Your task to perform on an android device: Show me popular games on the Play Store Image 0: 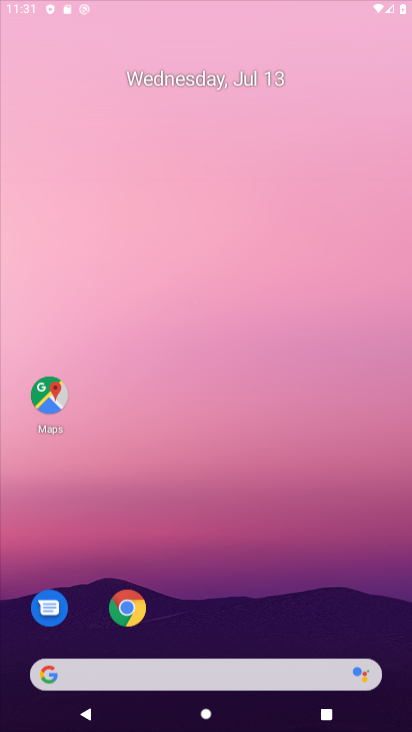
Step 0: click (240, 283)
Your task to perform on an android device: Show me popular games on the Play Store Image 1: 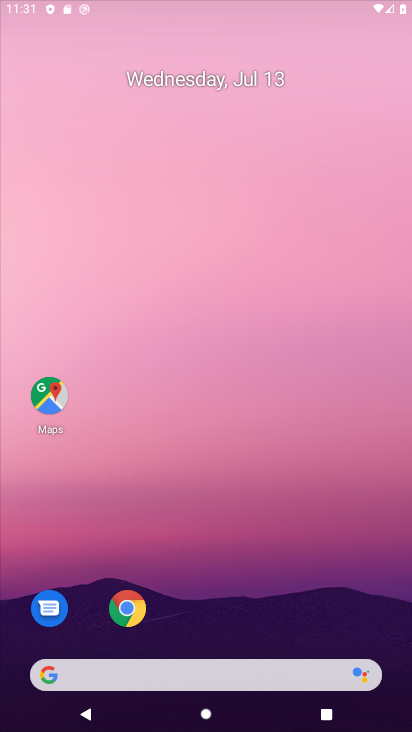
Step 1: drag from (203, 578) to (199, 204)
Your task to perform on an android device: Show me popular games on the Play Store Image 2: 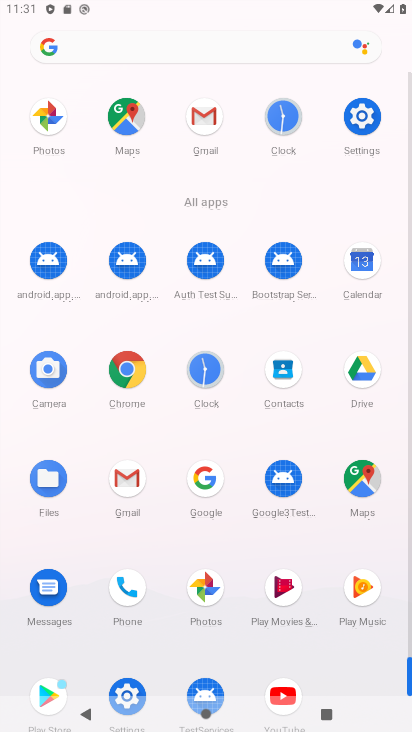
Step 2: drag from (178, 635) to (188, 268)
Your task to perform on an android device: Show me popular games on the Play Store Image 3: 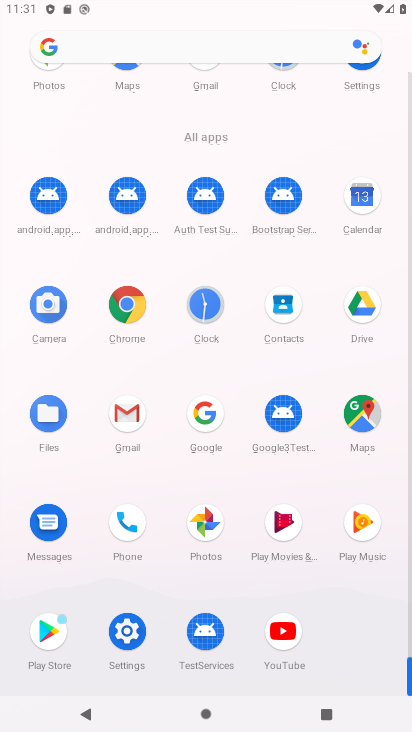
Step 3: click (49, 629)
Your task to perform on an android device: Show me popular games on the Play Store Image 4: 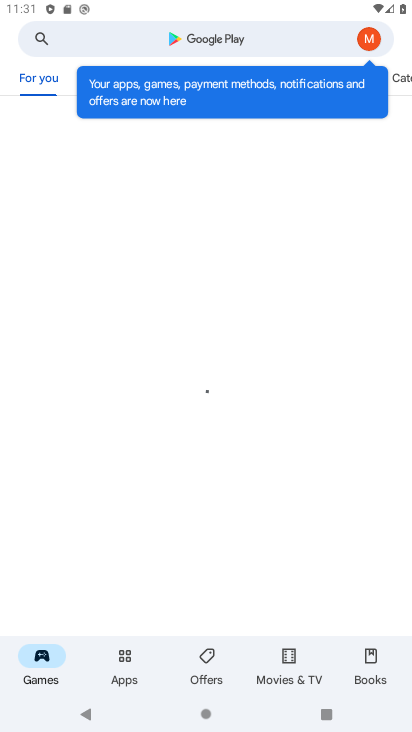
Step 4: drag from (146, 488) to (183, 271)
Your task to perform on an android device: Show me popular games on the Play Store Image 5: 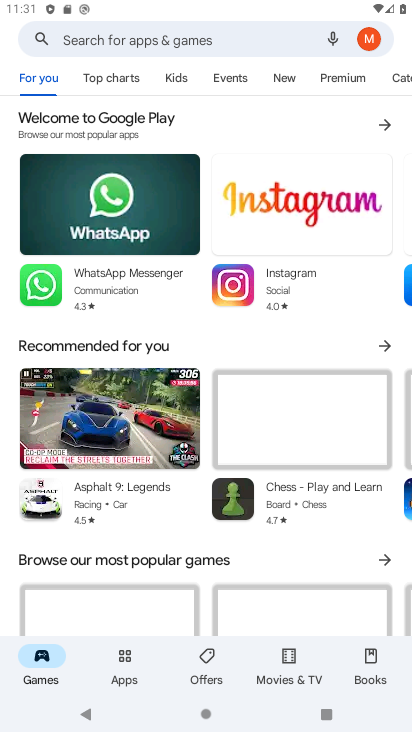
Step 5: drag from (208, 143) to (210, 475)
Your task to perform on an android device: Show me popular games on the Play Store Image 6: 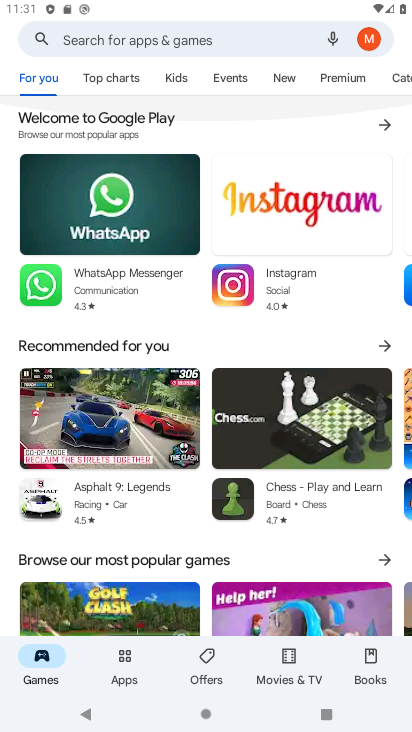
Step 6: drag from (207, 489) to (212, 237)
Your task to perform on an android device: Show me popular games on the Play Store Image 7: 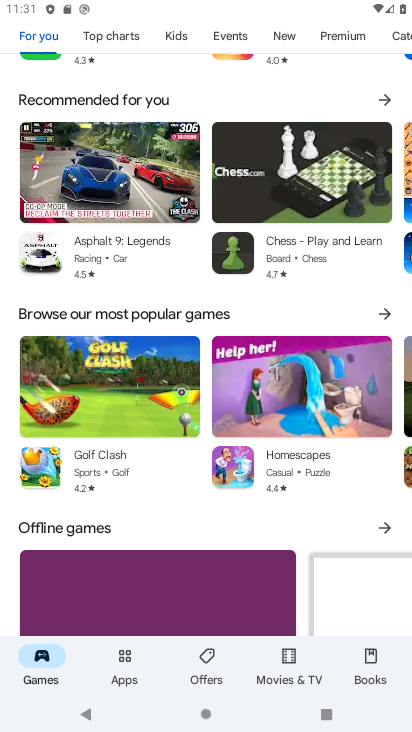
Step 7: drag from (223, 135) to (213, 615)
Your task to perform on an android device: Show me popular games on the Play Store Image 8: 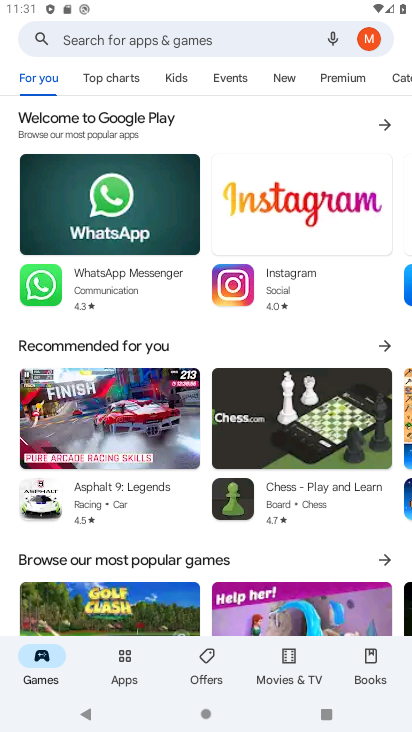
Step 8: drag from (182, 579) to (210, 405)
Your task to perform on an android device: Show me popular games on the Play Store Image 9: 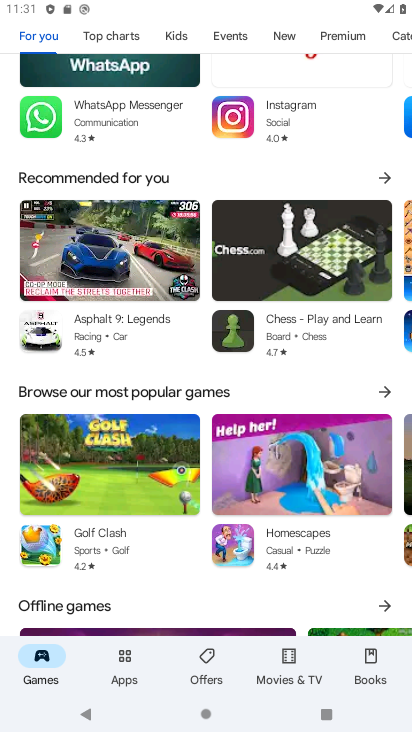
Step 9: click (386, 391)
Your task to perform on an android device: Show me popular games on the Play Store Image 10: 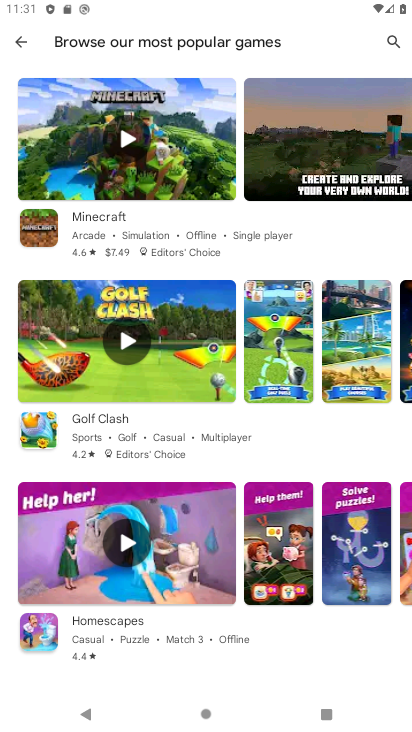
Step 10: drag from (105, 570) to (164, 371)
Your task to perform on an android device: Show me popular games on the Play Store Image 11: 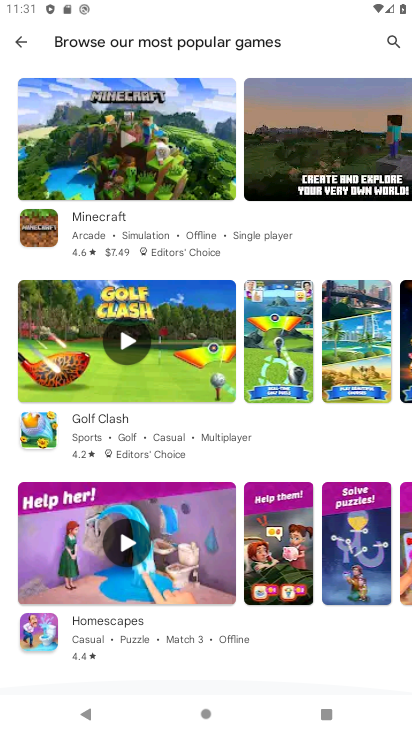
Step 11: drag from (192, 228) to (244, 587)
Your task to perform on an android device: Show me popular games on the Play Store Image 12: 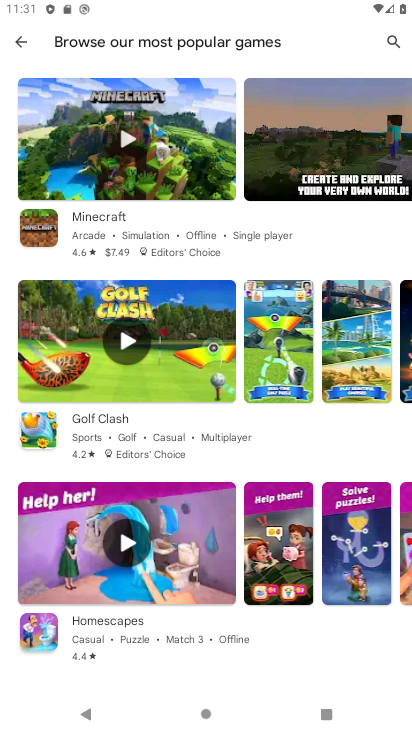
Step 12: drag from (204, 257) to (215, 537)
Your task to perform on an android device: Show me popular games on the Play Store Image 13: 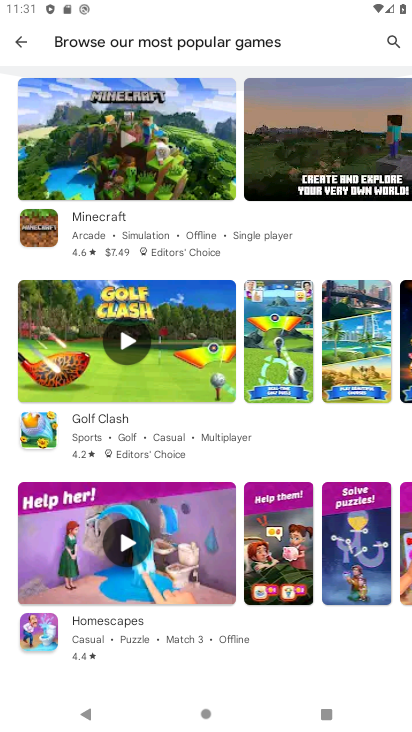
Step 13: drag from (228, 543) to (234, 343)
Your task to perform on an android device: Show me popular games on the Play Store Image 14: 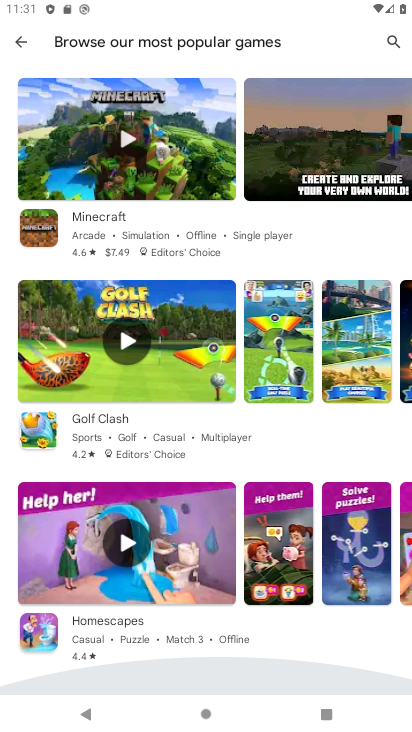
Step 14: drag from (240, 233) to (236, 546)
Your task to perform on an android device: Show me popular games on the Play Store Image 15: 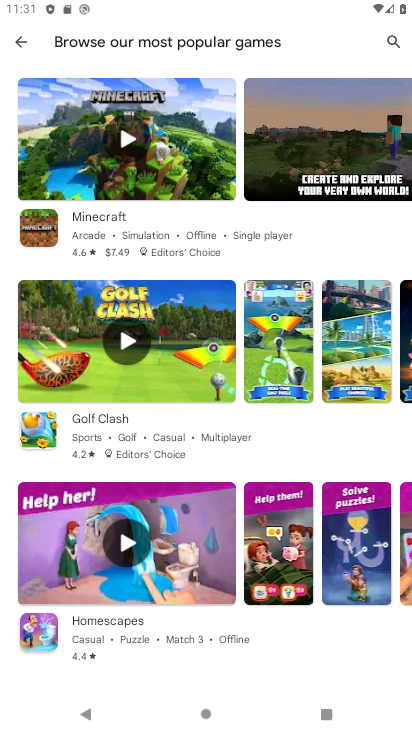
Step 15: drag from (189, 585) to (210, 336)
Your task to perform on an android device: Show me popular games on the Play Store Image 16: 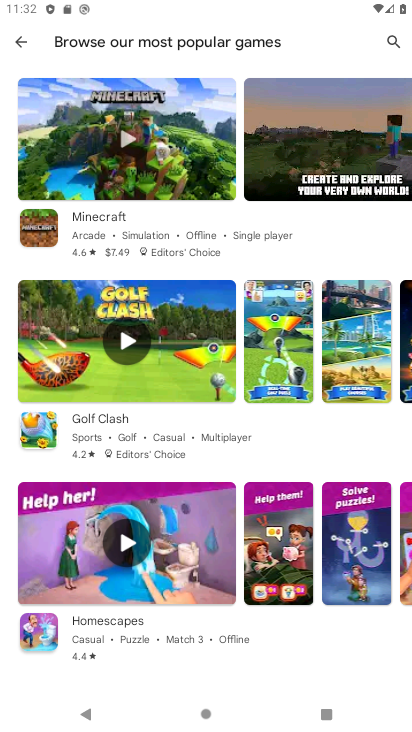
Step 16: drag from (221, 254) to (246, 516)
Your task to perform on an android device: Show me popular games on the Play Store Image 17: 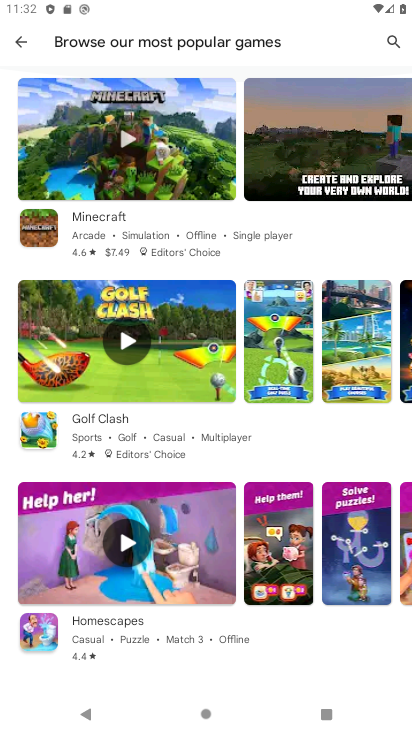
Step 17: drag from (191, 481) to (218, 175)
Your task to perform on an android device: Show me popular games on the Play Store Image 18: 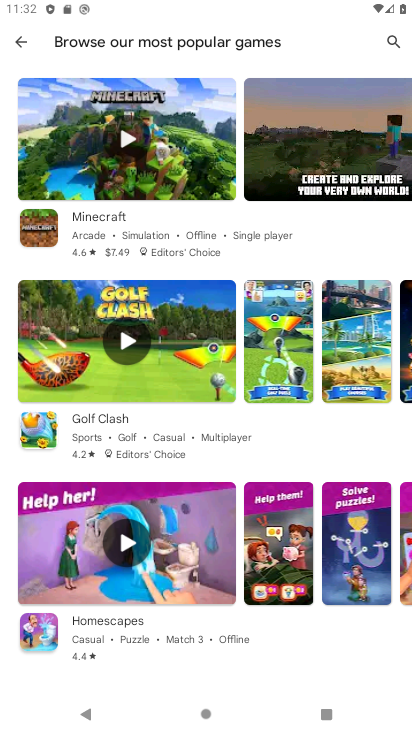
Step 18: drag from (209, 452) to (241, 152)
Your task to perform on an android device: Show me popular games on the Play Store Image 19: 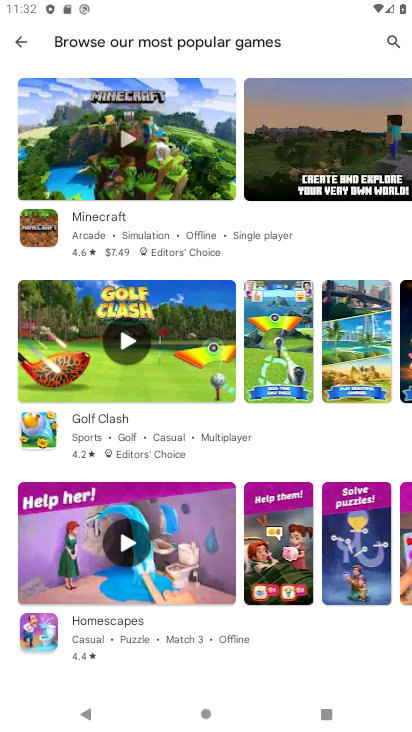
Step 19: drag from (203, 466) to (202, 215)
Your task to perform on an android device: Show me popular games on the Play Store Image 20: 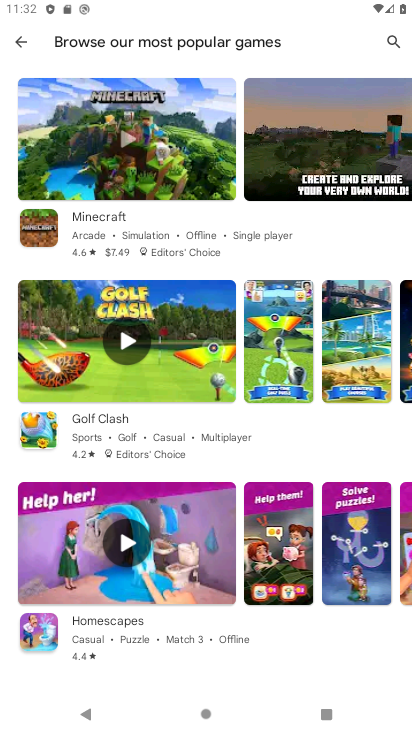
Step 20: drag from (208, 51) to (214, 483)
Your task to perform on an android device: Show me popular games on the Play Store Image 21: 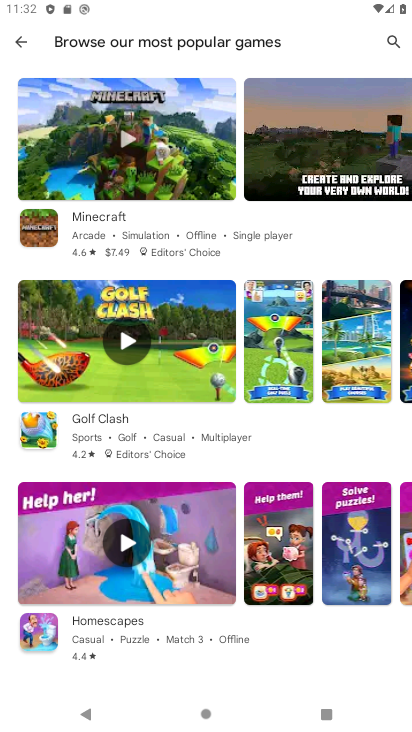
Step 21: drag from (219, 427) to (228, 212)
Your task to perform on an android device: Show me popular games on the Play Store Image 22: 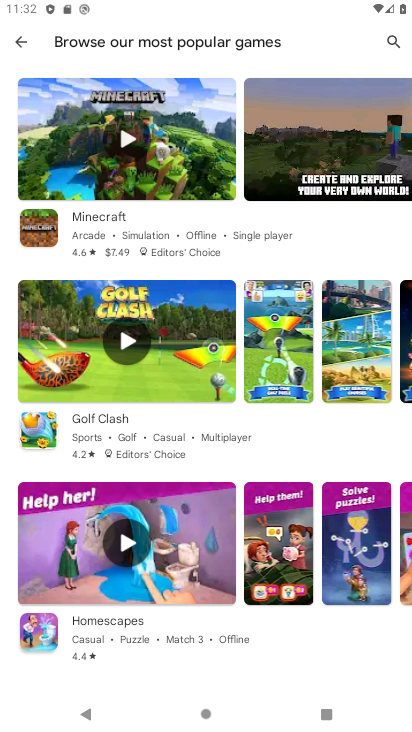
Step 22: drag from (234, 78) to (252, 313)
Your task to perform on an android device: Show me popular games on the Play Store Image 23: 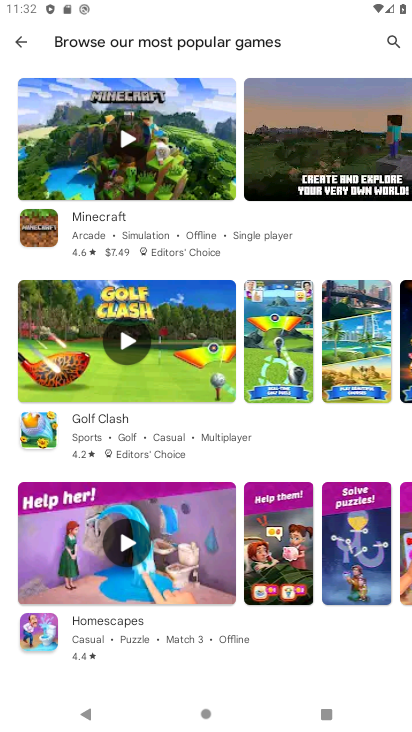
Step 23: drag from (240, 59) to (232, 287)
Your task to perform on an android device: Show me popular games on the Play Store Image 24: 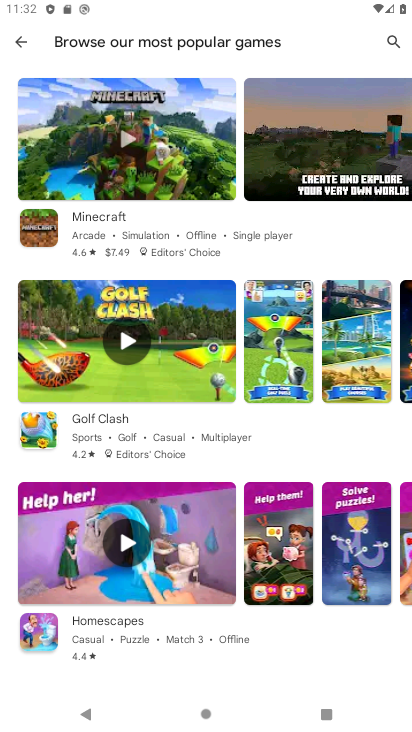
Step 24: drag from (230, 220) to (235, 673)
Your task to perform on an android device: Show me popular games on the Play Store Image 25: 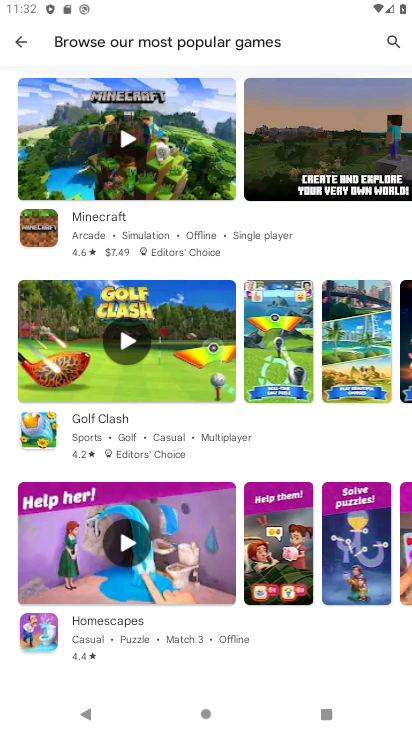
Step 25: drag from (267, 532) to (283, 284)
Your task to perform on an android device: Show me popular games on the Play Store Image 26: 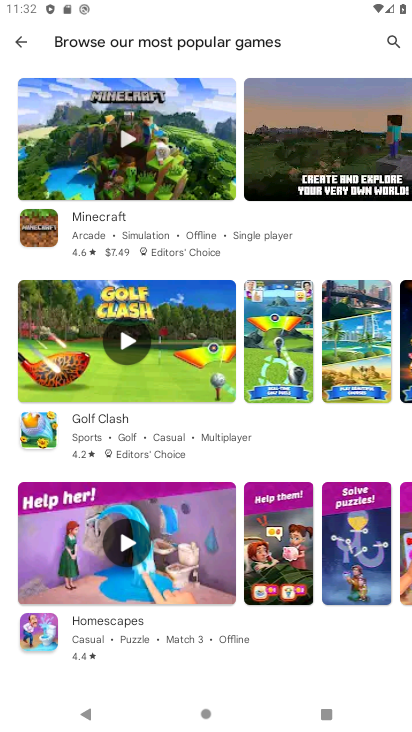
Step 26: drag from (231, 560) to (255, 237)
Your task to perform on an android device: Show me popular games on the Play Store Image 27: 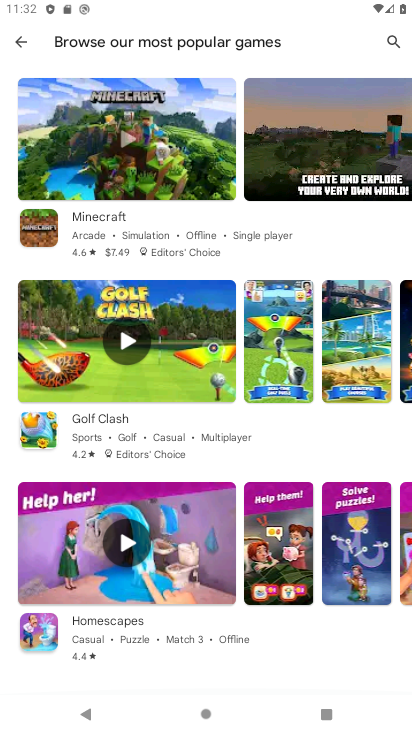
Step 27: drag from (214, 558) to (256, 291)
Your task to perform on an android device: Show me popular games on the Play Store Image 28: 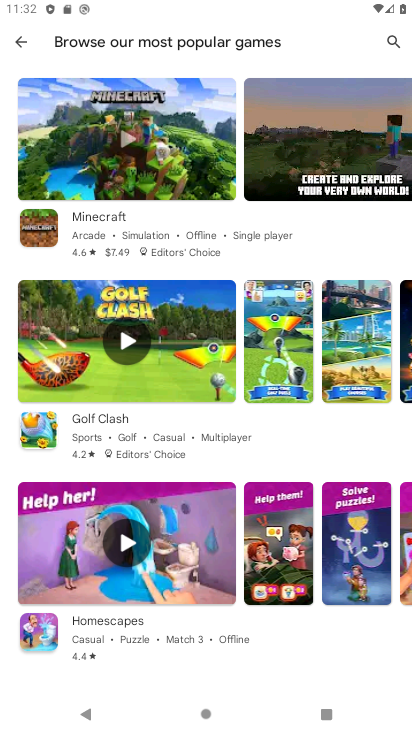
Step 28: drag from (253, 452) to (244, 317)
Your task to perform on an android device: Show me popular games on the Play Store Image 29: 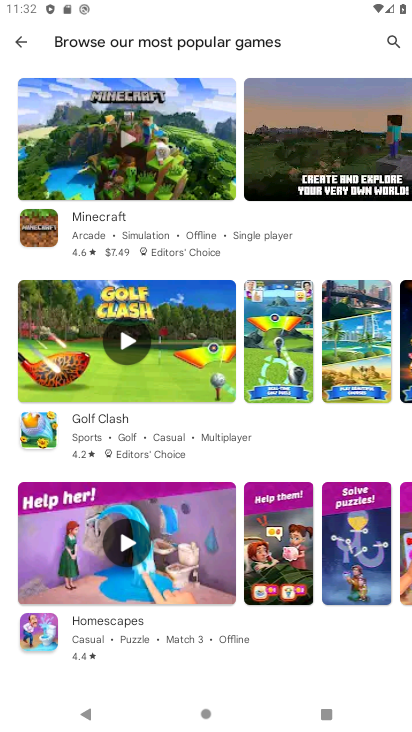
Step 29: drag from (194, 626) to (185, 481)
Your task to perform on an android device: Show me popular games on the Play Store Image 30: 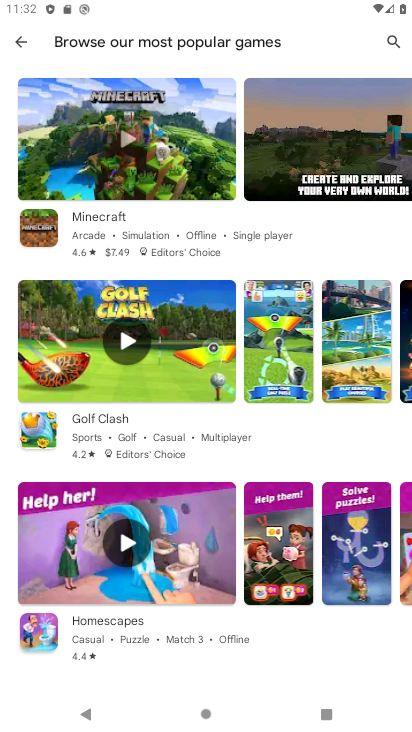
Step 30: drag from (183, 664) to (194, 440)
Your task to perform on an android device: Show me popular games on the Play Store Image 31: 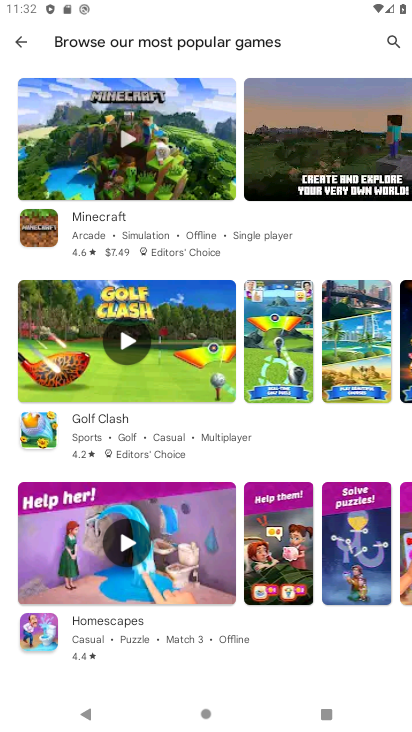
Step 31: drag from (158, 564) to (158, 522)
Your task to perform on an android device: Show me popular games on the Play Store Image 32: 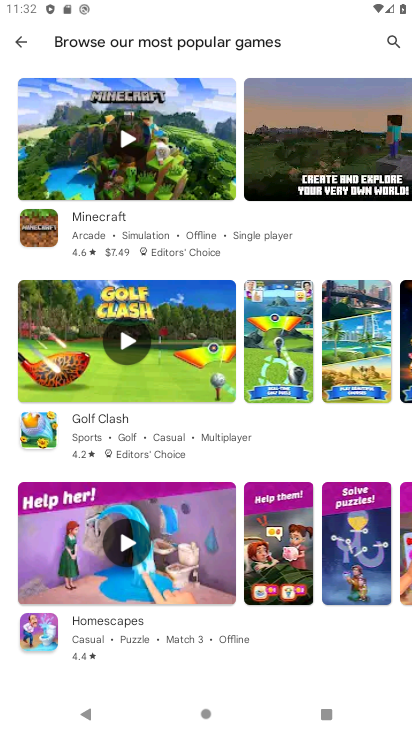
Step 32: drag from (139, 642) to (146, 571)
Your task to perform on an android device: Show me popular games on the Play Store Image 33: 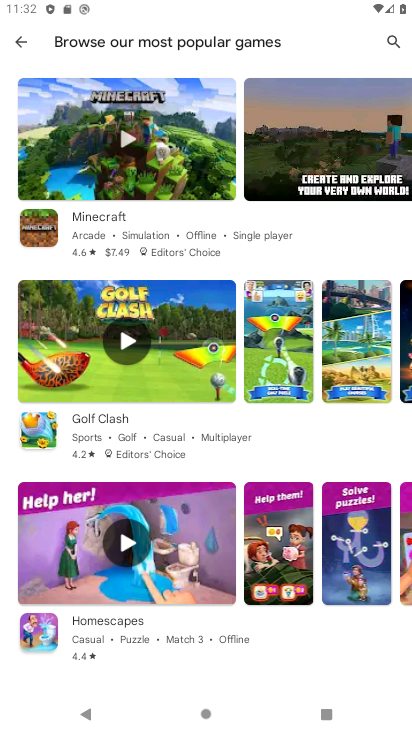
Step 33: drag from (188, 431) to (189, 389)
Your task to perform on an android device: Show me popular games on the Play Store Image 34: 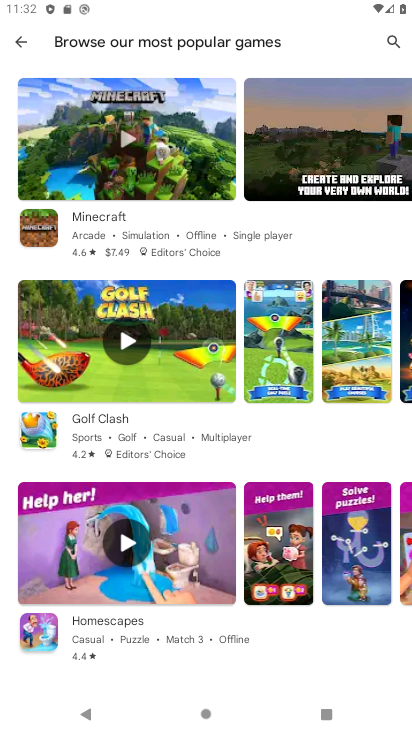
Step 34: click (182, 401)
Your task to perform on an android device: Show me popular games on the Play Store Image 35: 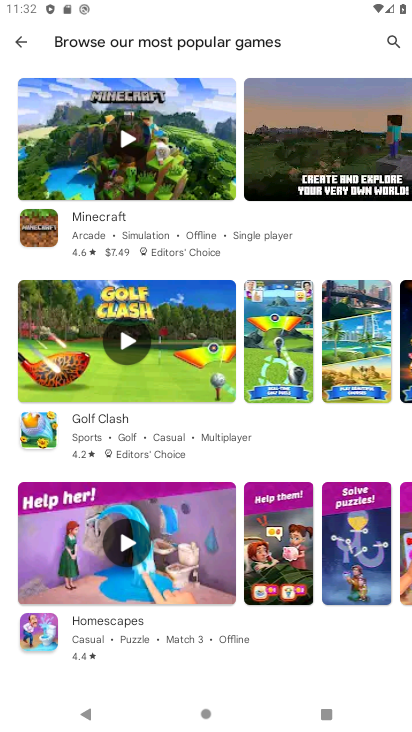
Step 35: task complete